Your task to perform on an android device: Open notification settings Image 0: 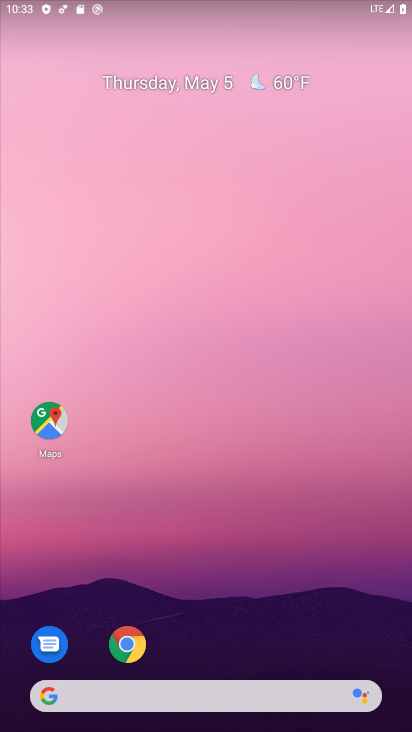
Step 0: drag from (366, 609) to (335, 97)
Your task to perform on an android device: Open notification settings Image 1: 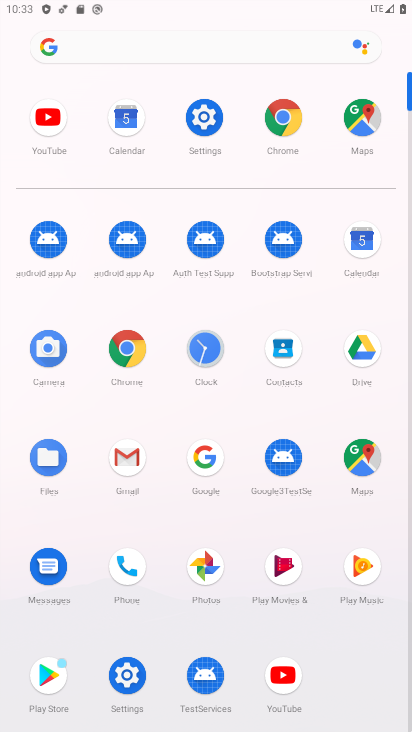
Step 1: click (212, 118)
Your task to perform on an android device: Open notification settings Image 2: 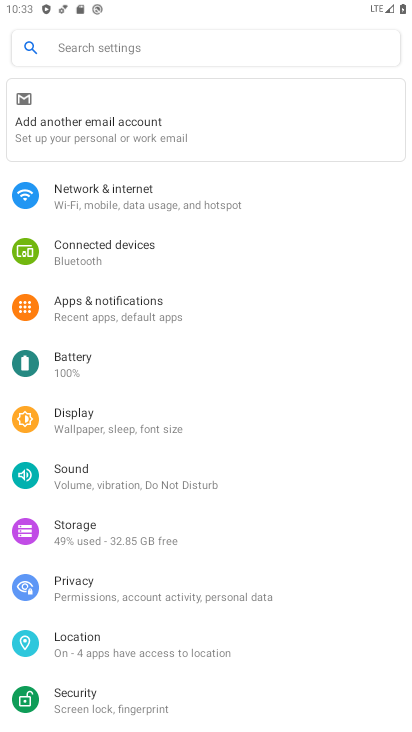
Step 2: click (141, 309)
Your task to perform on an android device: Open notification settings Image 3: 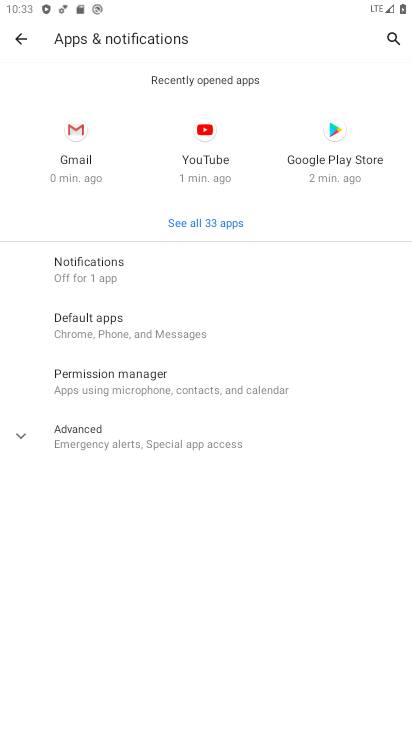
Step 3: click (109, 272)
Your task to perform on an android device: Open notification settings Image 4: 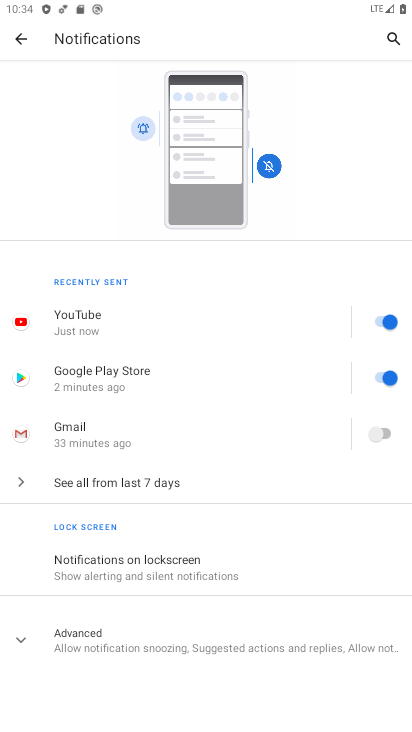
Step 4: task complete